Your task to perform on an android device: Search for sushi restaurants on Maps Image 0: 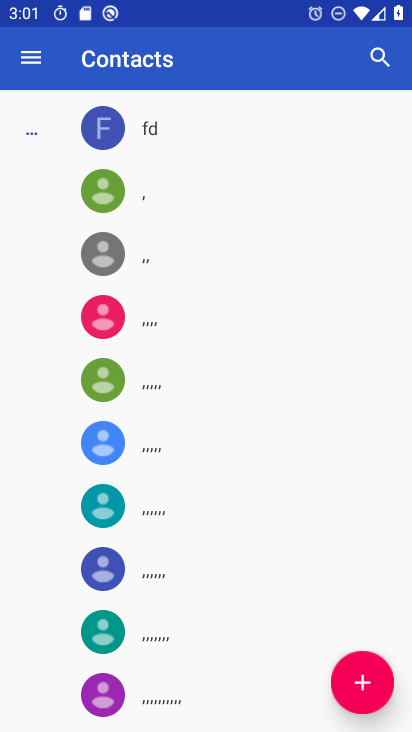
Step 0: press home button
Your task to perform on an android device: Search for sushi restaurants on Maps Image 1: 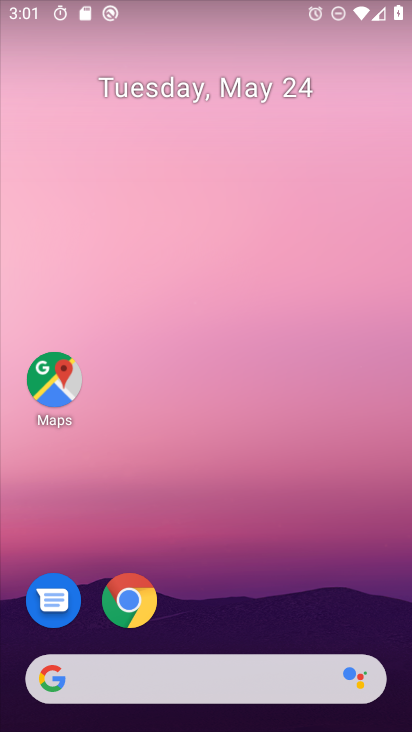
Step 1: click (47, 377)
Your task to perform on an android device: Search for sushi restaurants on Maps Image 2: 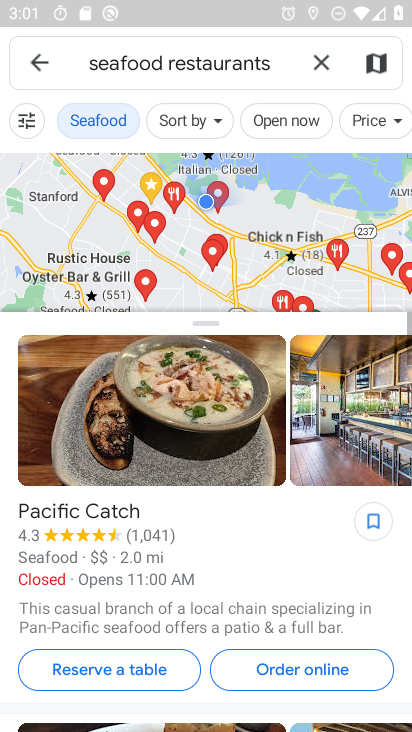
Step 2: click (178, 69)
Your task to perform on an android device: Search for sushi restaurants on Maps Image 3: 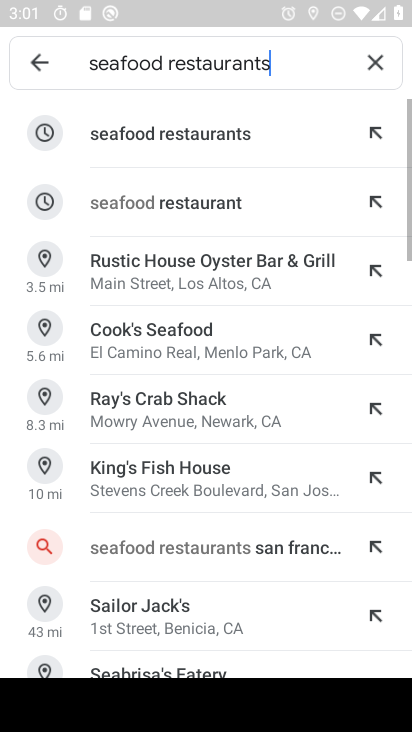
Step 3: click (378, 59)
Your task to perform on an android device: Search for sushi restaurants on Maps Image 4: 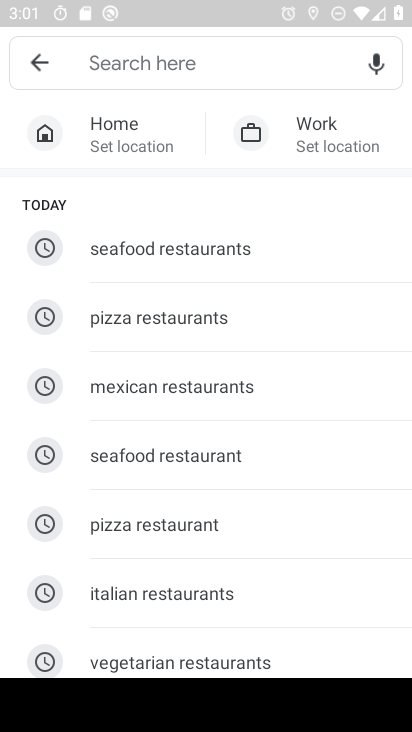
Step 4: type "sushi restaurants"
Your task to perform on an android device: Search for sushi restaurants on Maps Image 5: 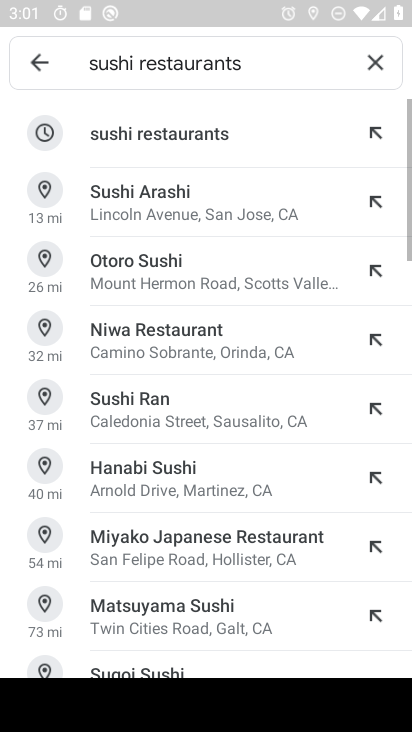
Step 5: click (249, 146)
Your task to perform on an android device: Search for sushi restaurants on Maps Image 6: 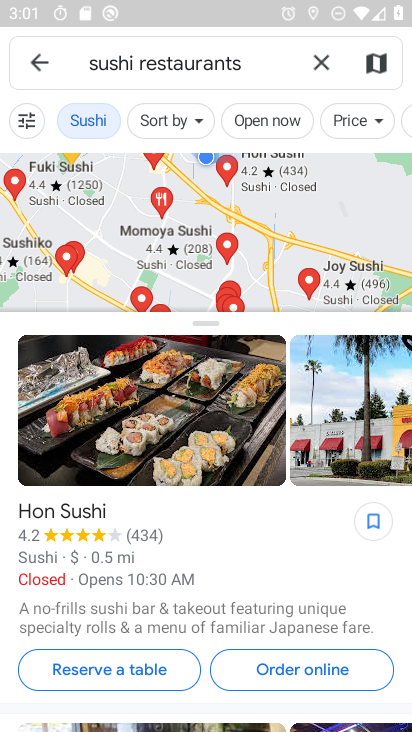
Step 6: task complete